Your task to perform on an android device: Open Google Chrome and open the bookmarks view Image 0: 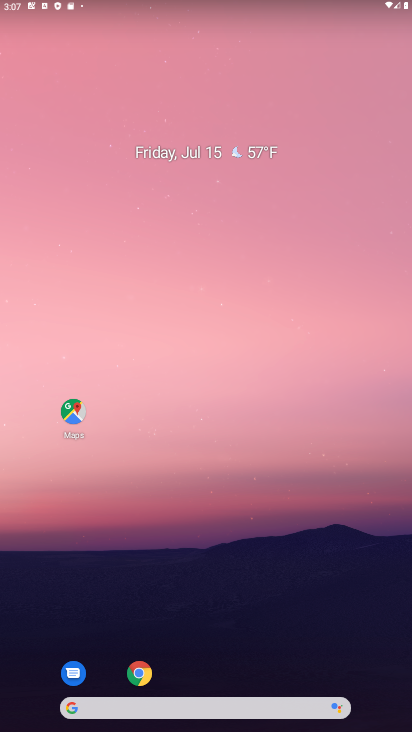
Step 0: click (136, 673)
Your task to perform on an android device: Open Google Chrome and open the bookmarks view Image 1: 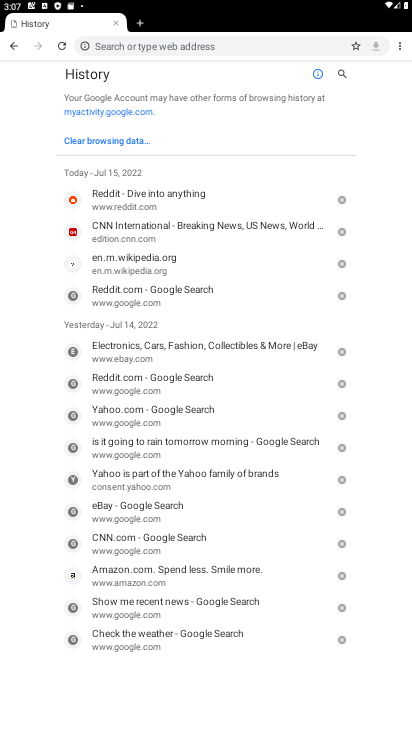
Step 1: click (398, 49)
Your task to perform on an android device: Open Google Chrome and open the bookmarks view Image 2: 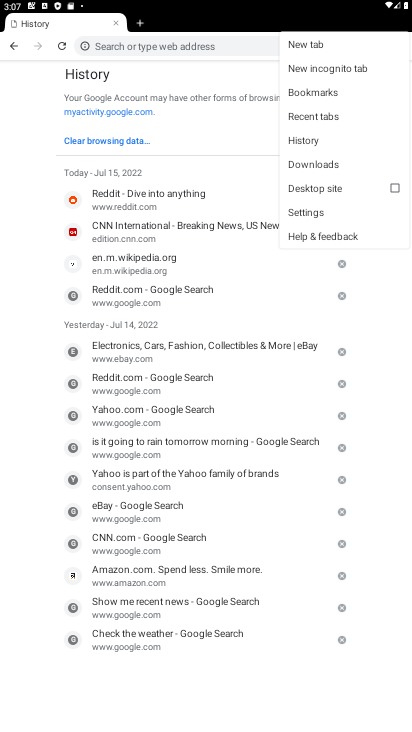
Step 2: click (305, 92)
Your task to perform on an android device: Open Google Chrome and open the bookmarks view Image 3: 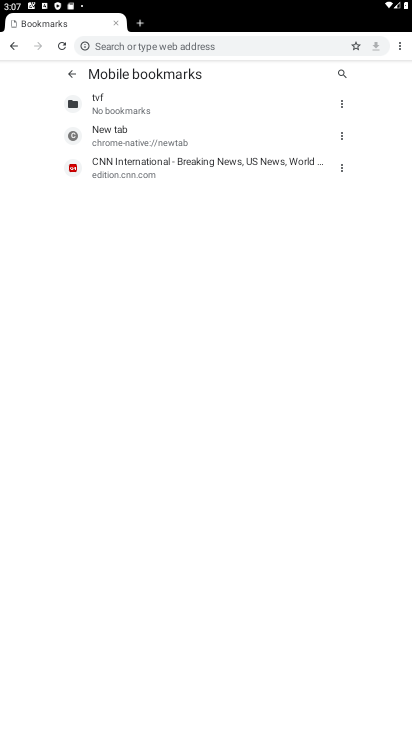
Step 3: task complete